Your task to perform on an android device: Open the calendar app, open the side menu, and click the "Day" option Image 0: 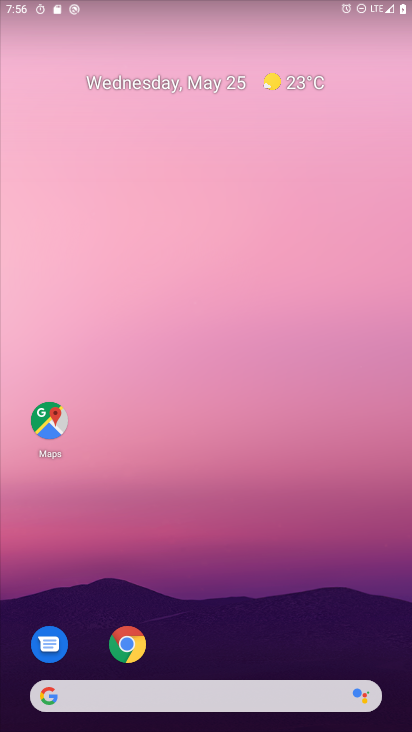
Step 0: drag from (326, 638) to (272, 10)
Your task to perform on an android device: Open the calendar app, open the side menu, and click the "Day" option Image 1: 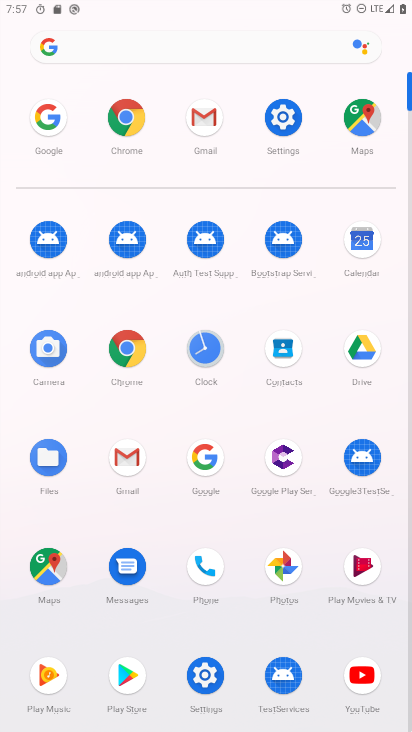
Step 1: click (354, 252)
Your task to perform on an android device: Open the calendar app, open the side menu, and click the "Day" option Image 2: 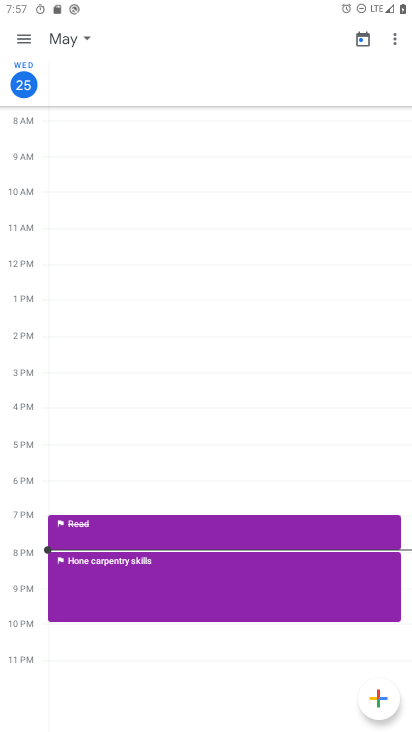
Step 2: click (23, 35)
Your task to perform on an android device: Open the calendar app, open the side menu, and click the "Day" option Image 3: 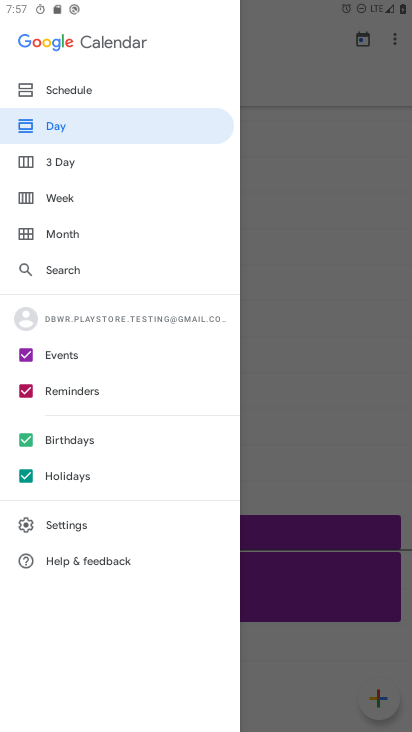
Step 3: click (87, 118)
Your task to perform on an android device: Open the calendar app, open the side menu, and click the "Day" option Image 4: 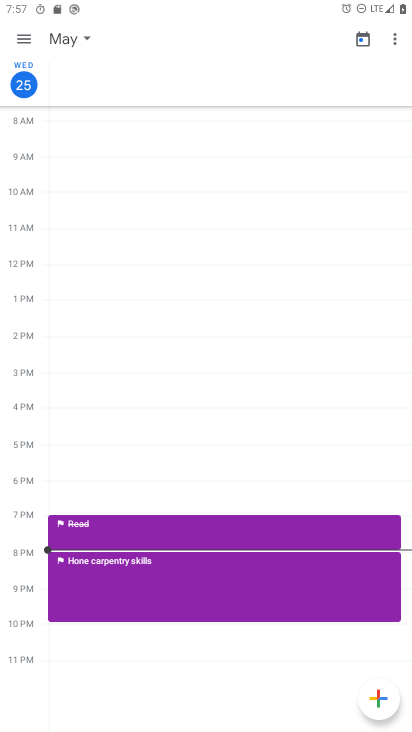
Step 4: task complete